Your task to perform on an android device: turn off wifi Image 0: 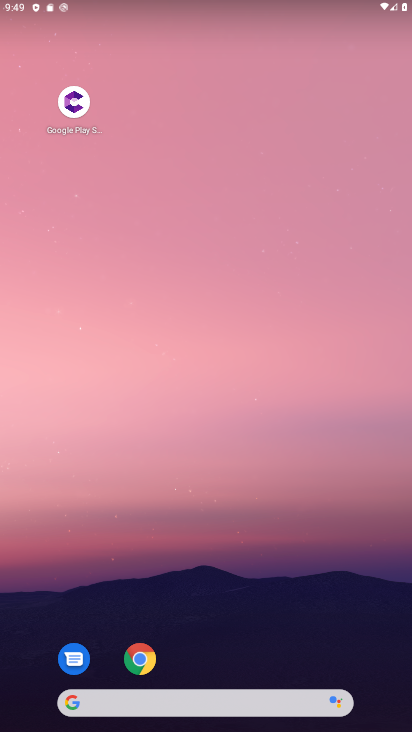
Step 0: drag from (228, 633) to (53, 25)
Your task to perform on an android device: turn off wifi Image 1: 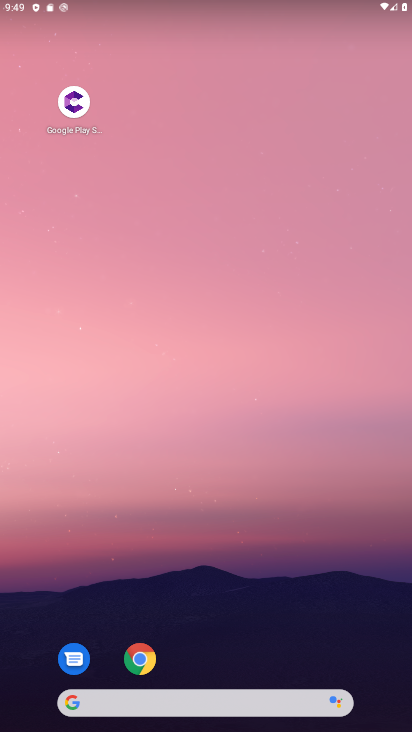
Step 1: drag from (143, 412) to (111, 62)
Your task to perform on an android device: turn off wifi Image 2: 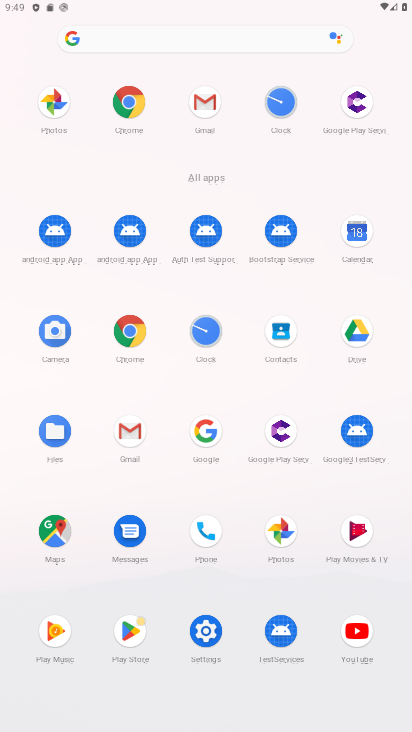
Step 2: drag from (191, 495) to (175, 53)
Your task to perform on an android device: turn off wifi Image 3: 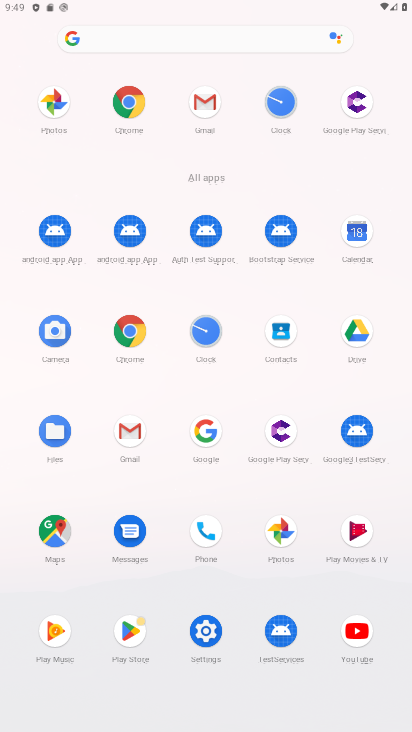
Step 3: click (202, 627)
Your task to perform on an android device: turn off wifi Image 4: 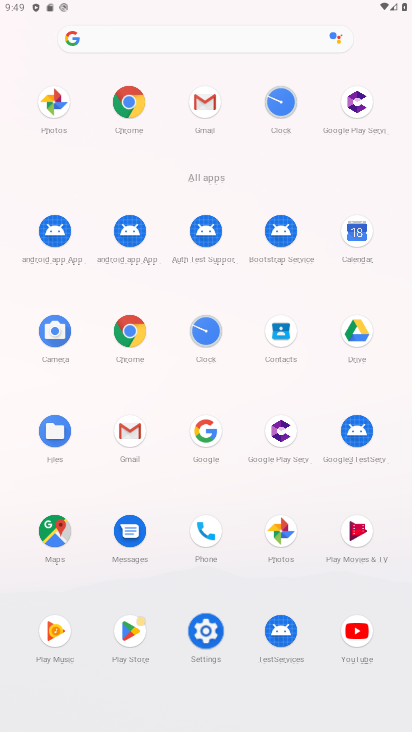
Step 4: click (202, 628)
Your task to perform on an android device: turn off wifi Image 5: 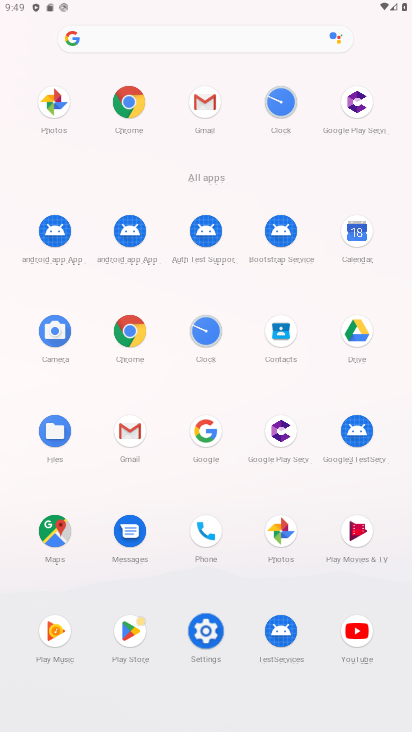
Step 5: click (205, 636)
Your task to perform on an android device: turn off wifi Image 6: 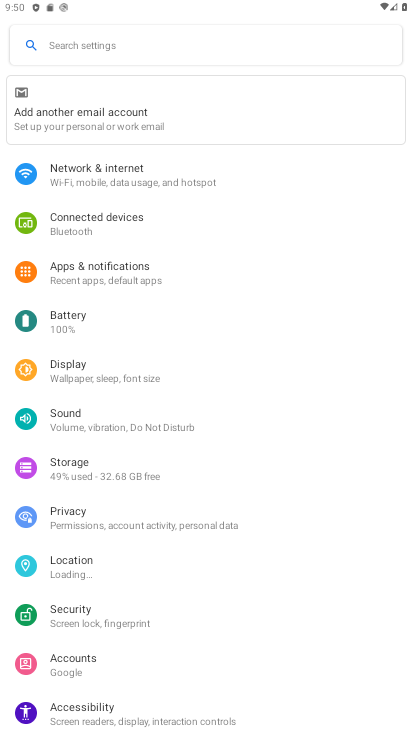
Step 6: click (110, 176)
Your task to perform on an android device: turn off wifi Image 7: 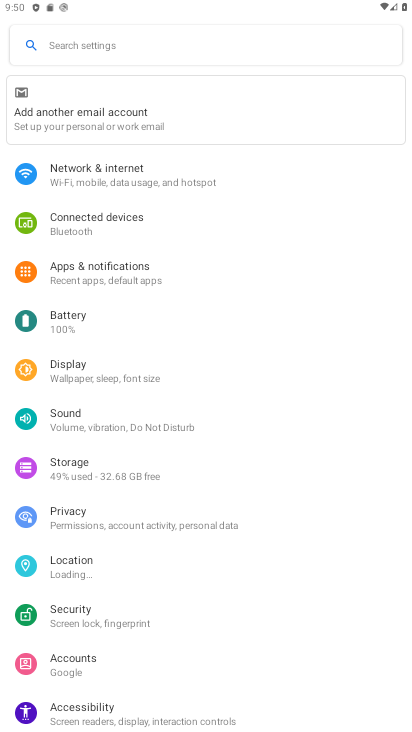
Step 7: click (108, 174)
Your task to perform on an android device: turn off wifi Image 8: 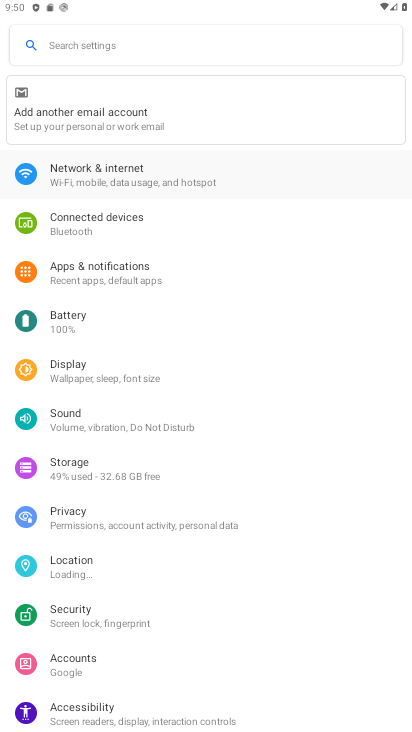
Step 8: click (108, 173)
Your task to perform on an android device: turn off wifi Image 9: 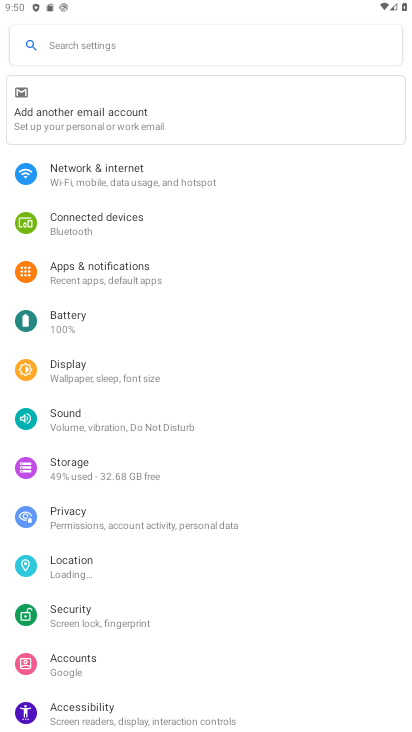
Step 9: click (107, 172)
Your task to perform on an android device: turn off wifi Image 10: 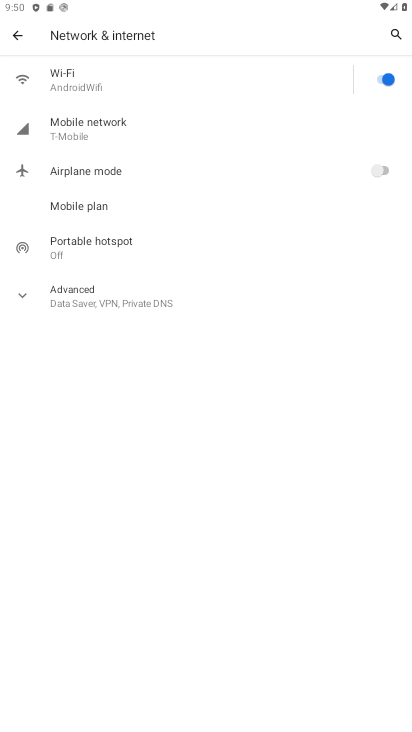
Step 10: click (399, 69)
Your task to perform on an android device: turn off wifi Image 11: 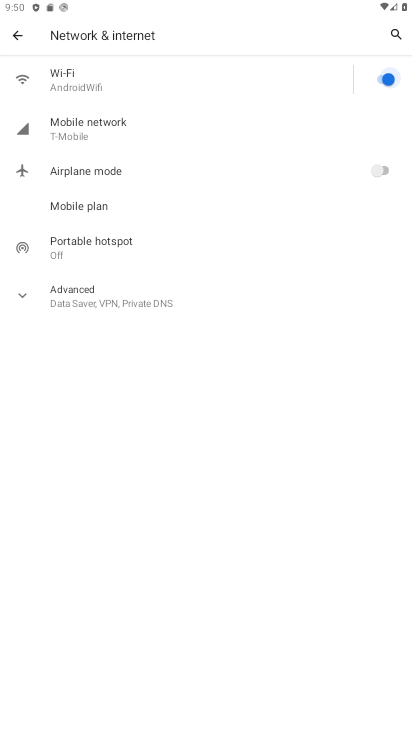
Step 11: click (386, 76)
Your task to perform on an android device: turn off wifi Image 12: 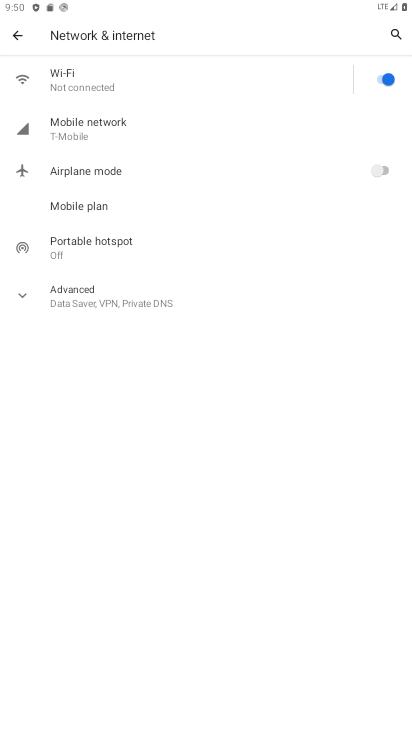
Step 12: task complete